Your task to perform on an android device: Search for sushi restaurants on Maps Image 0: 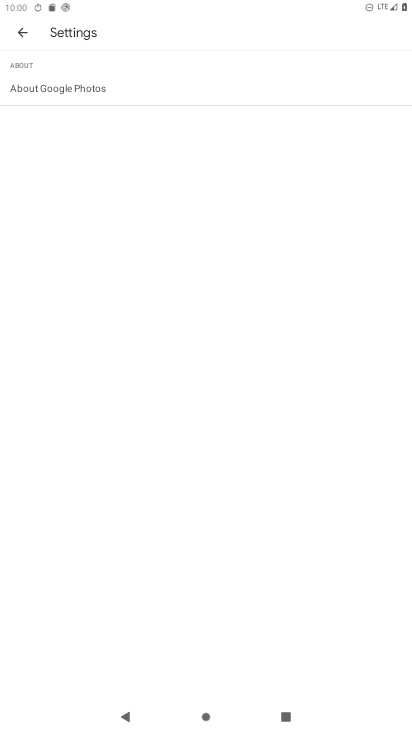
Step 0: press home button
Your task to perform on an android device: Search for sushi restaurants on Maps Image 1: 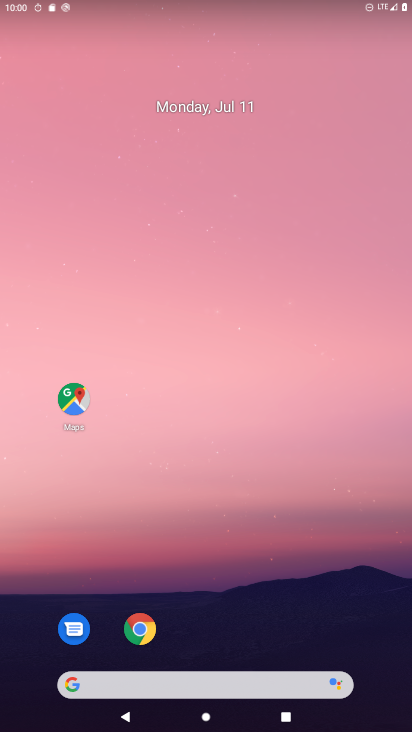
Step 1: click (73, 397)
Your task to perform on an android device: Search for sushi restaurants on Maps Image 2: 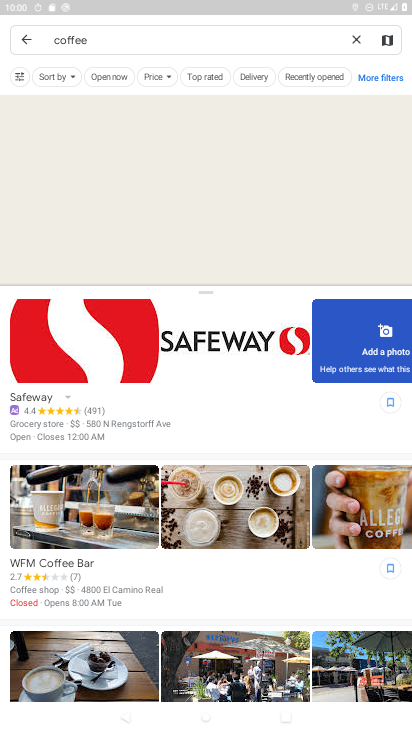
Step 2: click (359, 39)
Your task to perform on an android device: Search for sushi restaurants on Maps Image 3: 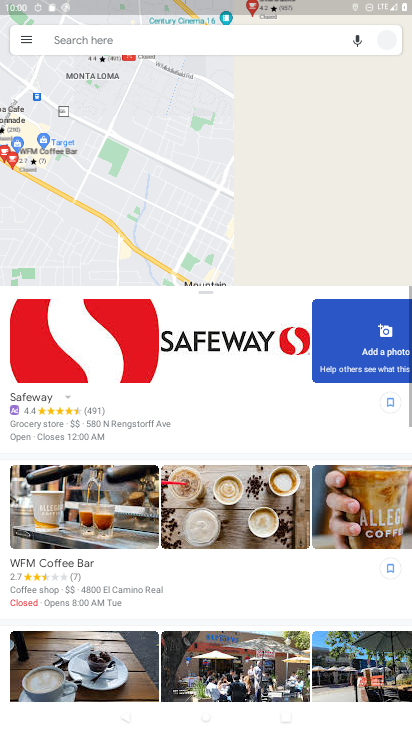
Step 3: click (246, 39)
Your task to perform on an android device: Search for sushi restaurants on Maps Image 4: 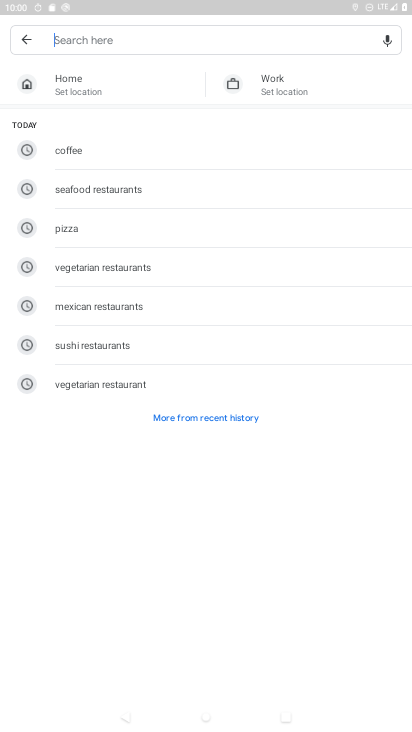
Step 4: click (229, 38)
Your task to perform on an android device: Search for sushi restaurants on Maps Image 5: 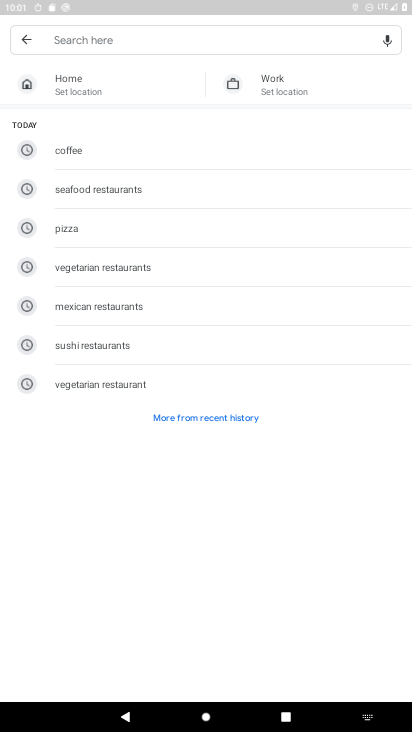
Step 5: click (135, 344)
Your task to perform on an android device: Search for sushi restaurants on Maps Image 6: 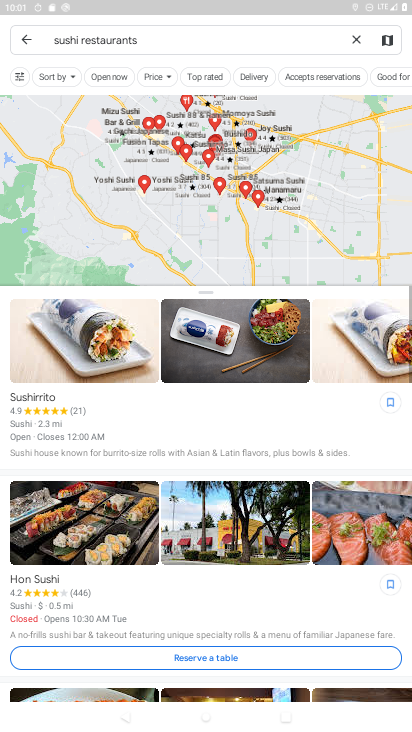
Step 6: task complete